Your task to perform on an android device: Open notification settings Image 0: 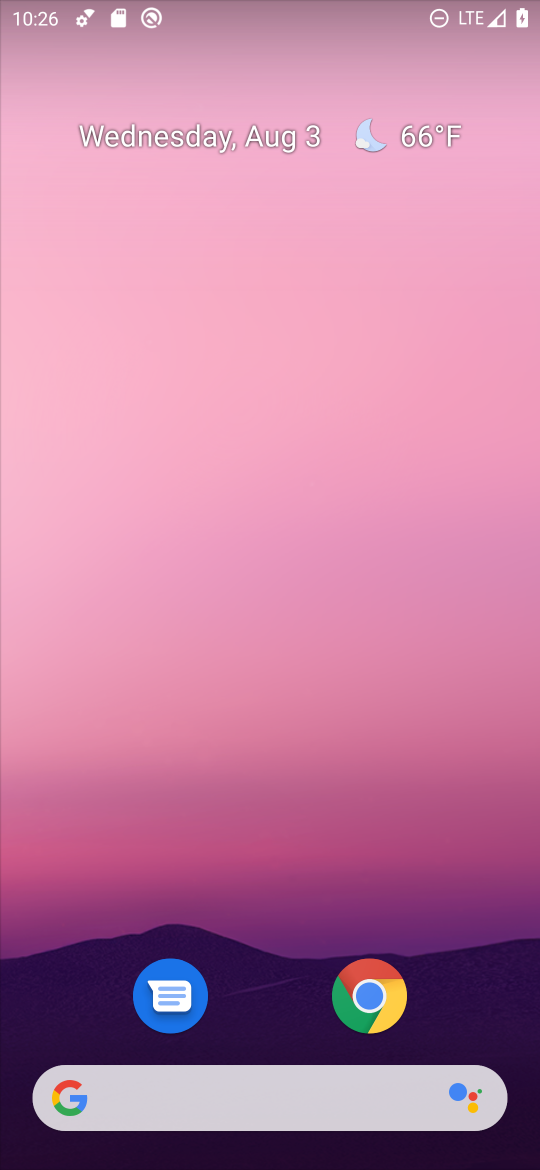
Step 0: drag from (284, 827) to (359, 8)
Your task to perform on an android device: Open notification settings Image 1: 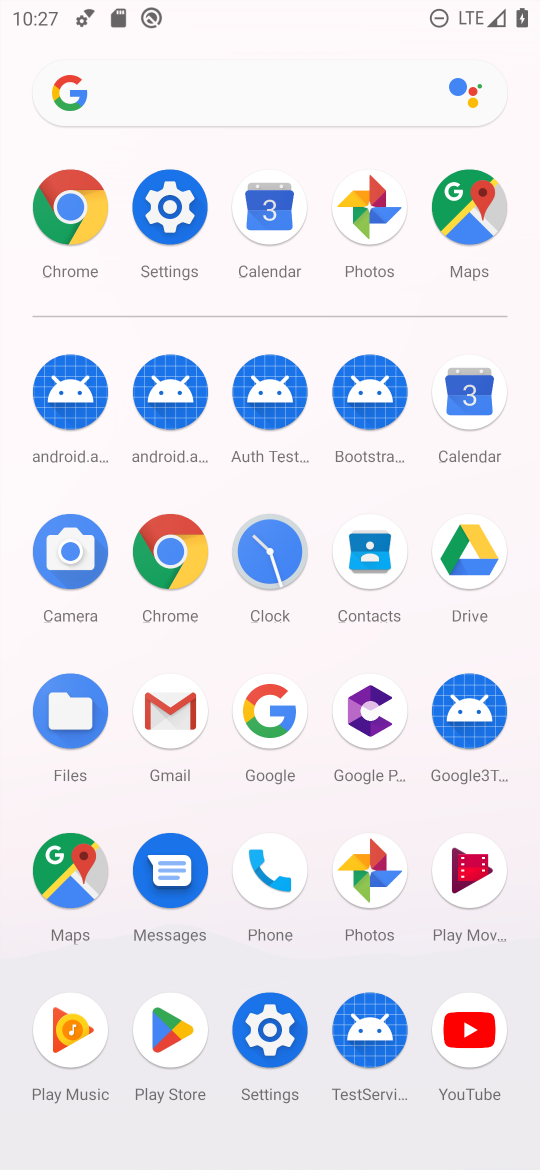
Step 1: click (177, 206)
Your task to perform on an android device: Open notification settings Image 2: 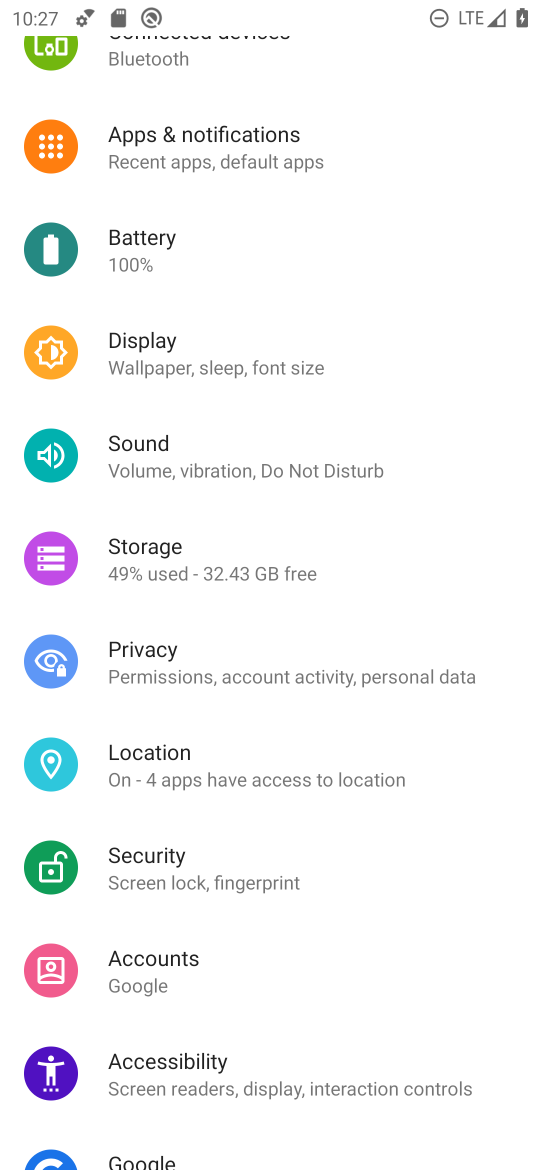
Step 2: drag from (356, 424) to (346, 920)
Your task to perform on an android device: Open notification settings Image 3: 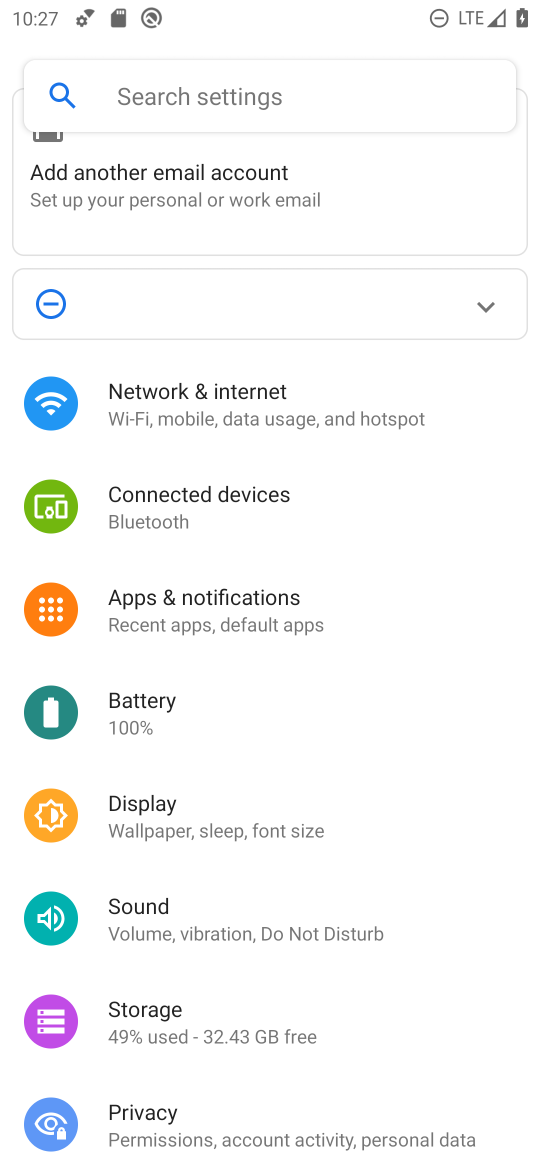
Step 3: click (248, 607)
Your task to perform on an android device: Open notification settings Image 4: 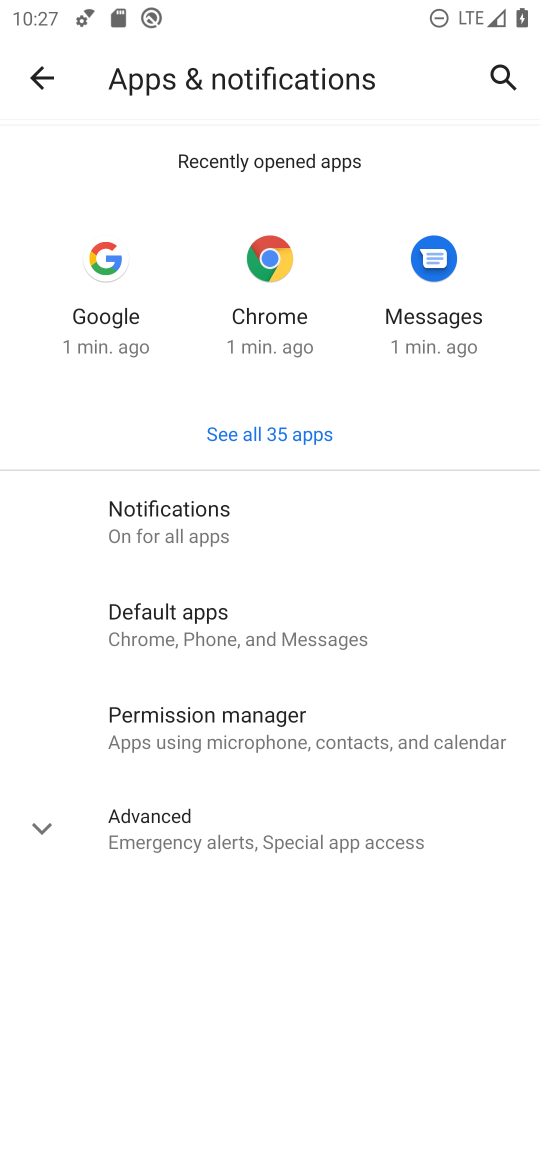
Step 4: click (203, 521)
Your task to perform on an android device: Open notification settings Image 5: 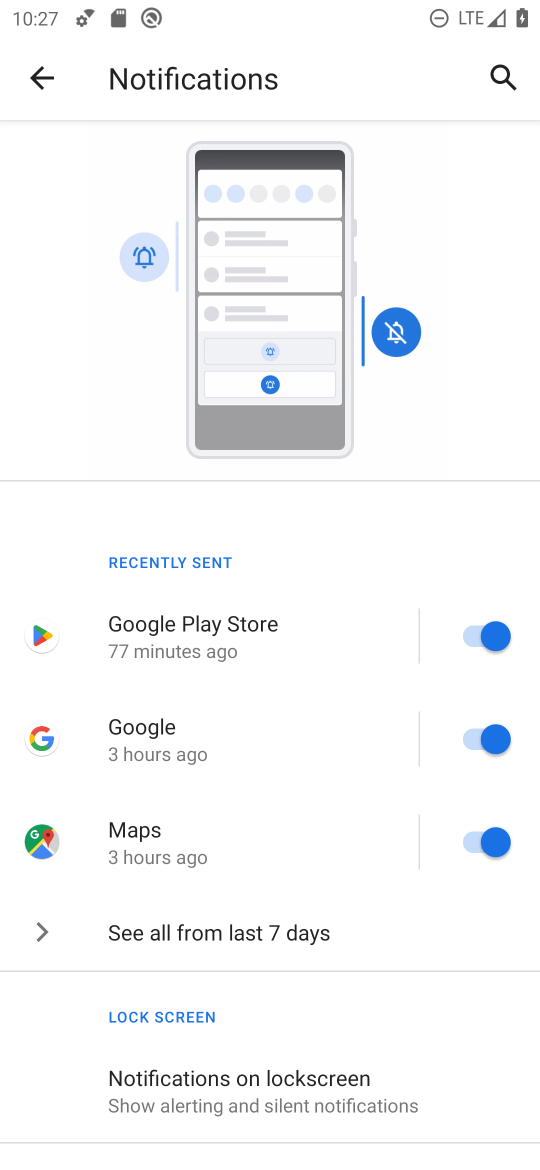
Step 5: task complete